Your task to perform on an android device: set the stopwatch Image 0: 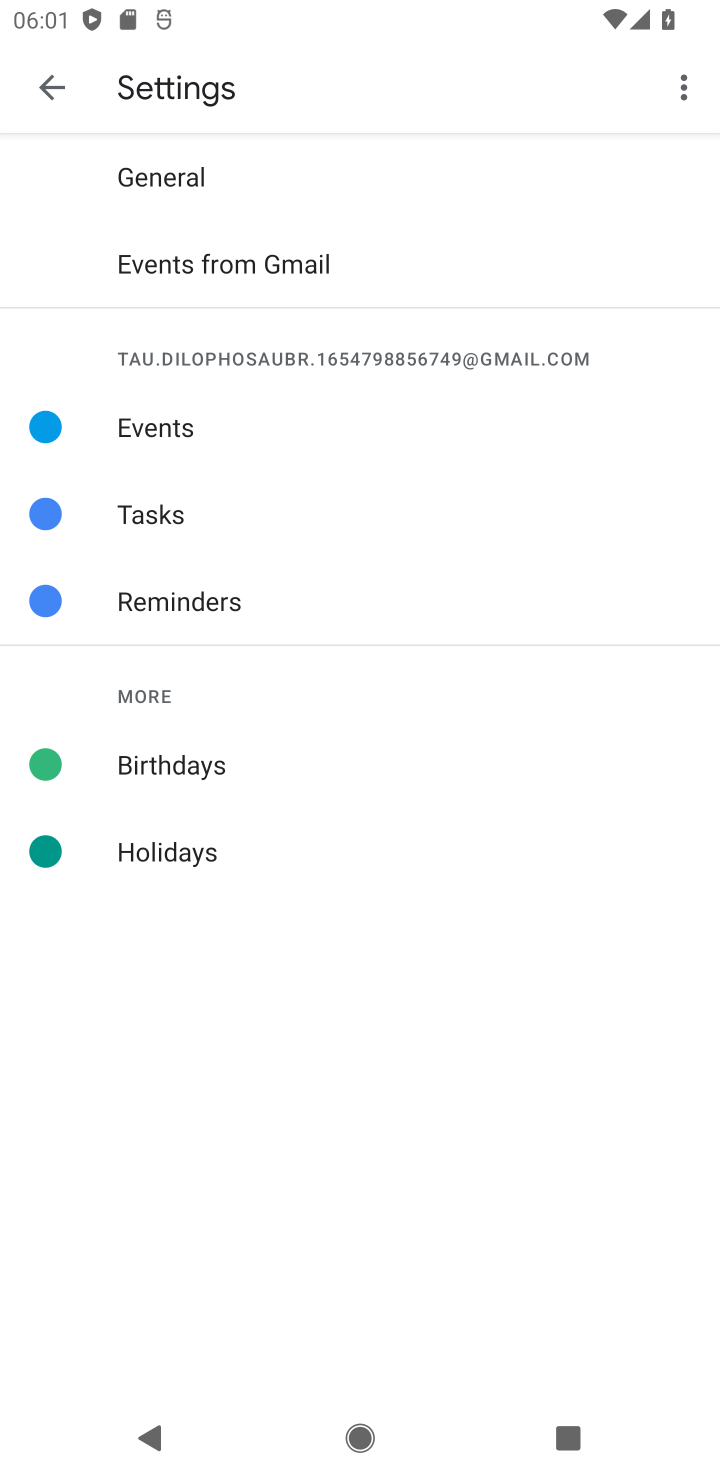
Step 0: press home button
Your task to perform on an android device: set the stopwatch Image 1: 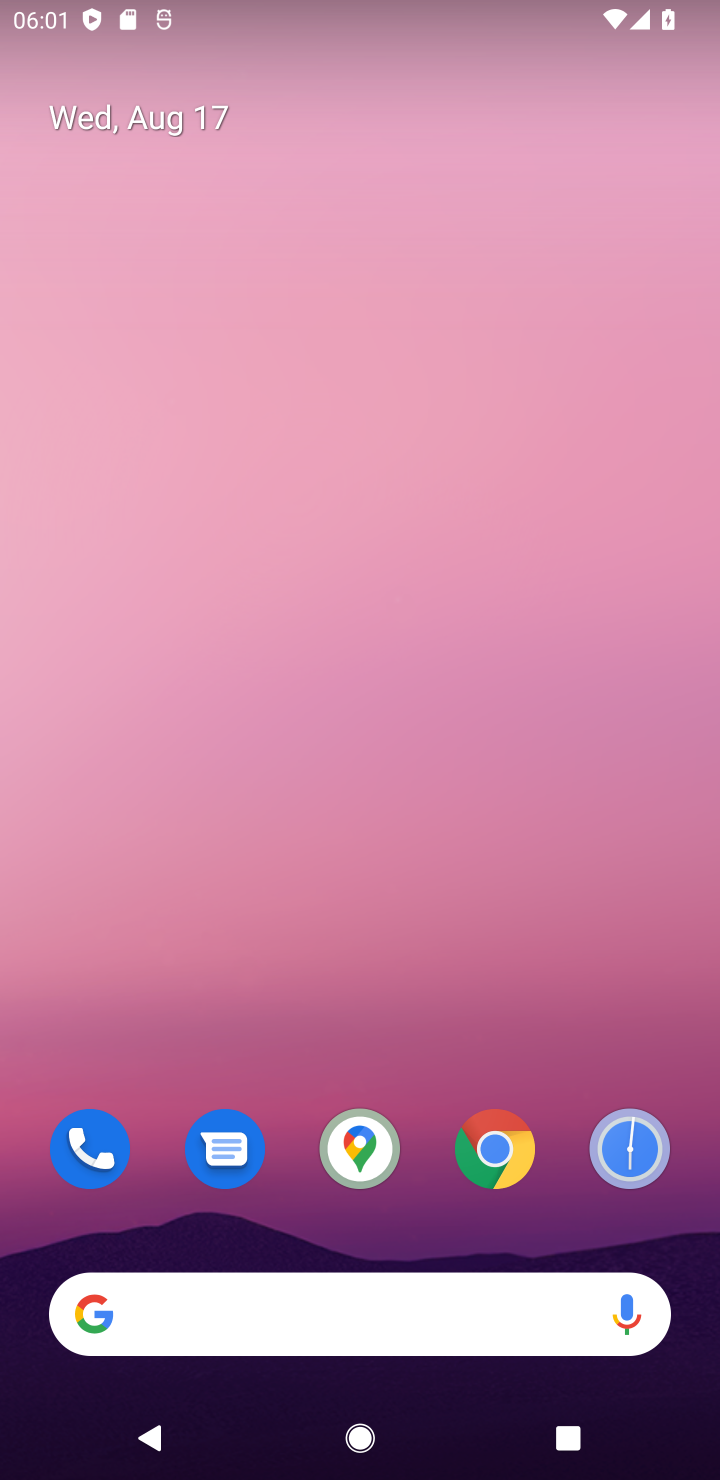
Step 1: click (620, 1132)
Your task to perform on an android device: set the stopwatch Image 2: 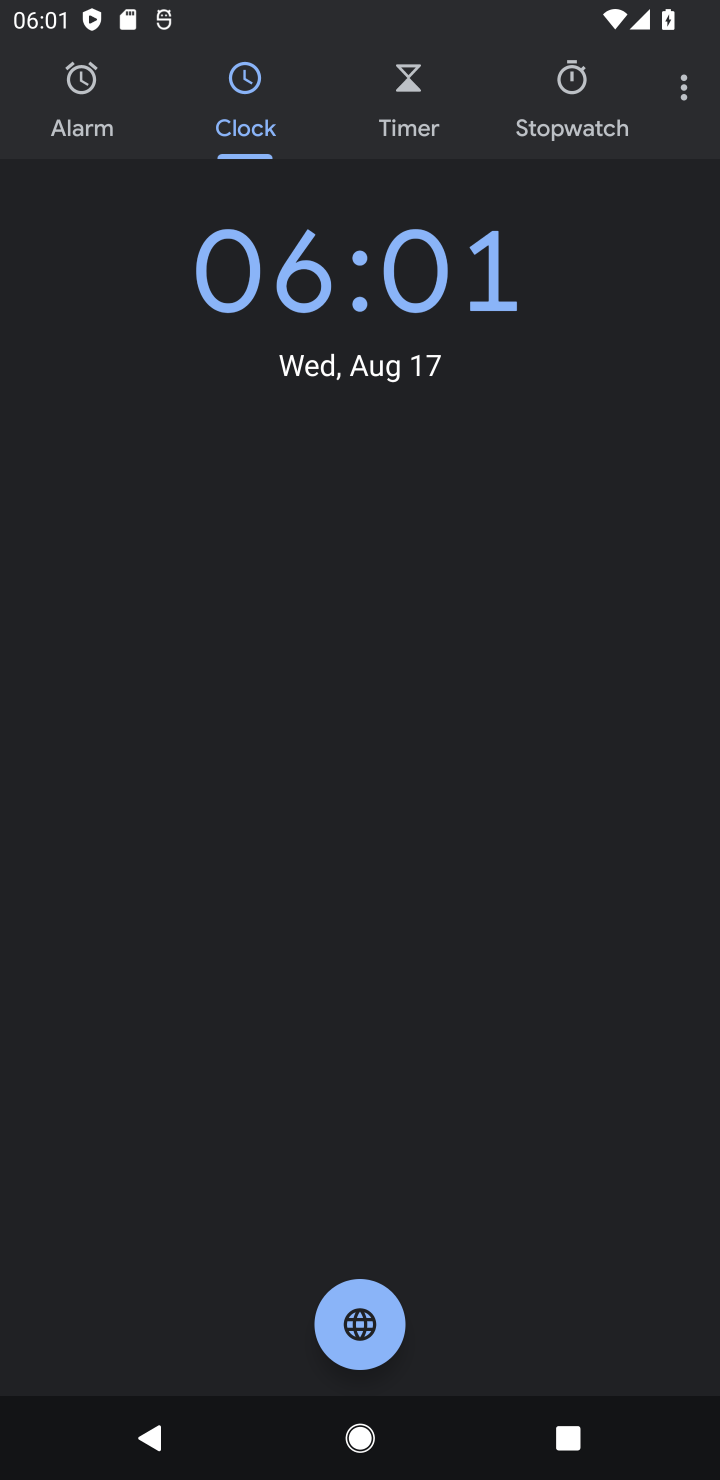
Step 2: click (585, 96)
Your task to perform on an android device: set the stopwatch Image 3: 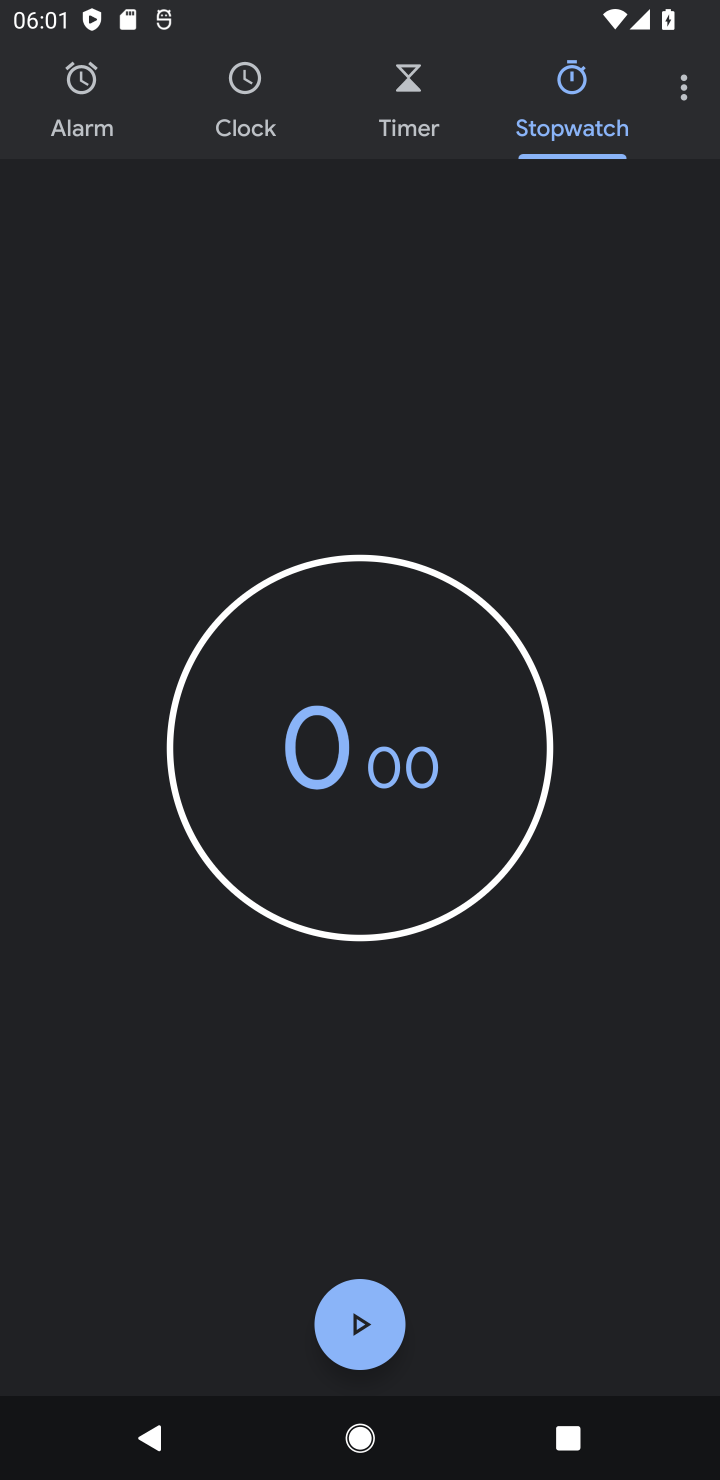
Step 3: task complete